Your task to perform on an android device: manage bookmarks in the chrome app Image 0: 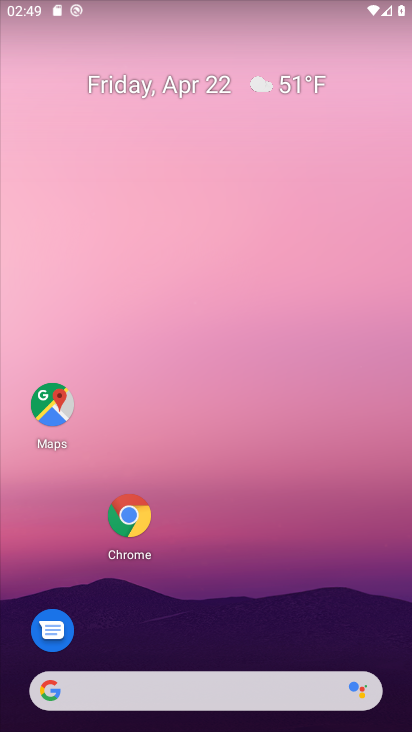
Step 0: click (126, 510)
Your task to perform on an android device: manage bookmarks in the chrome app Image 1: 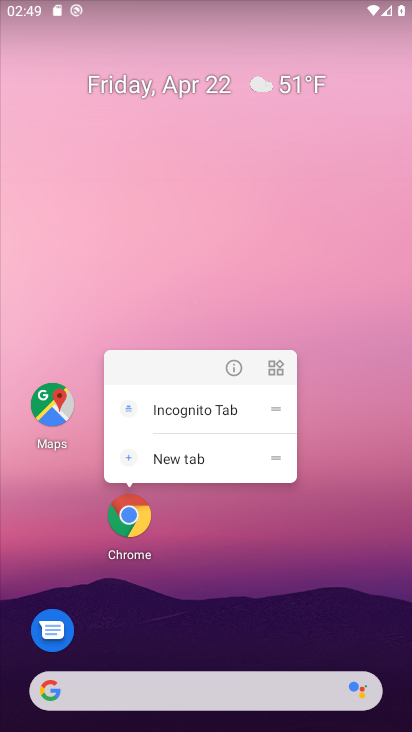
Step 1: click (121, 517)
Your task to perform on an android device: manage bookmarks in the chrome app Image 2: 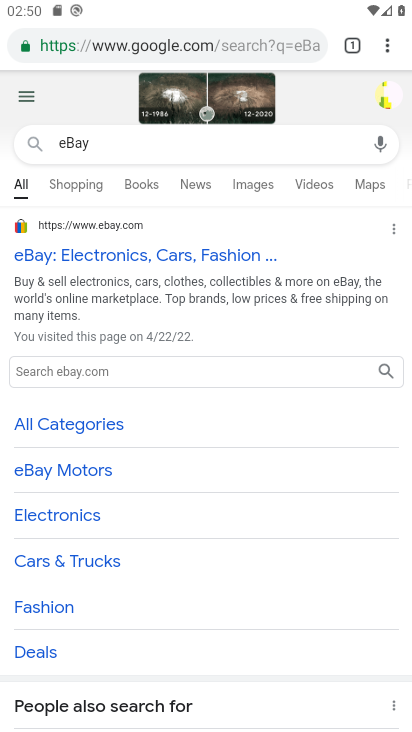
Step 2: click (386, 37)
Your task to perform on an android device: manage bookmarks in the chrome app Image 3: 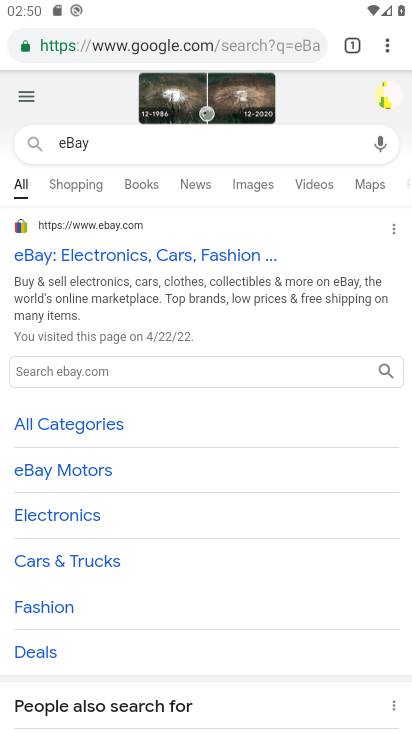
Step 3: click (385, 50)
Your task to perform on an android device: manage bookmarks in the chrome app Image 4: 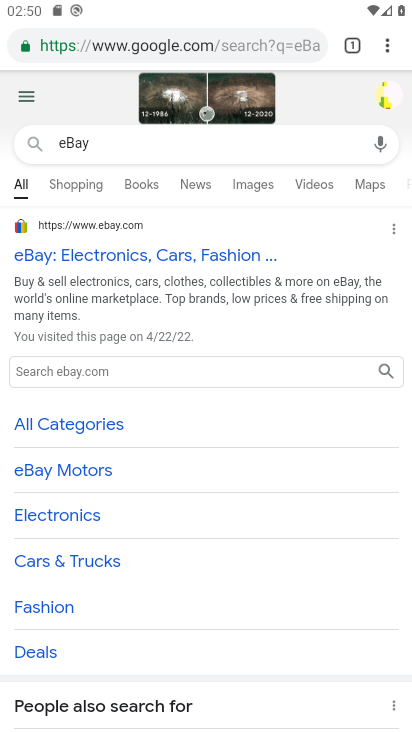
Step 4: click (385, 50)
Your task to perform on an android device: manage bookmarks in the chrome app Image 5: 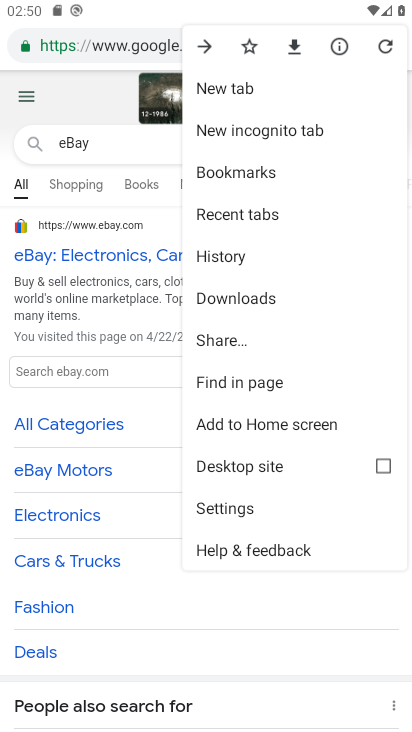
Step 5: click (232, 170)
Your task to perform on an android device: manage bookmarks in the chrome app Image 6: 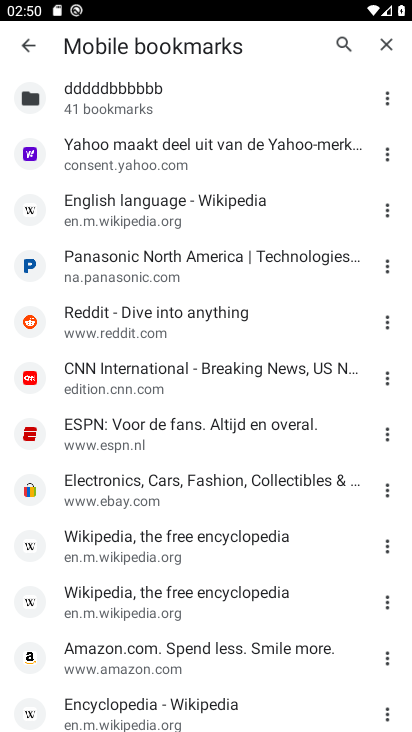
Step 6: click (385, 491)
Your task to perform on an android device: manage bookmarks in the chrome app Image 7: 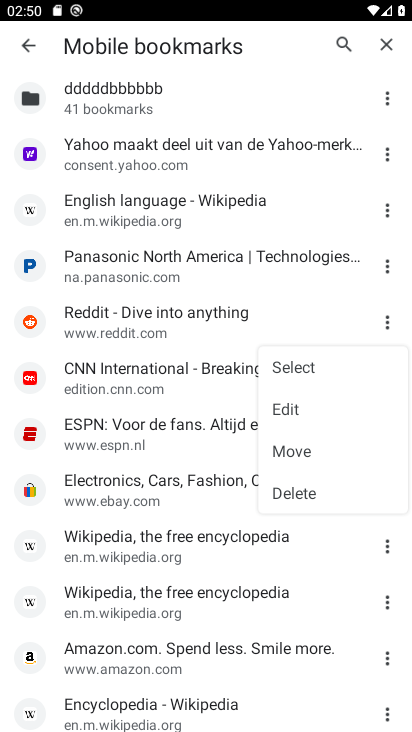
Step 7: click (304, 491)
Your task to perform on an android device: manage bookmarks in the chrome app Image 8: 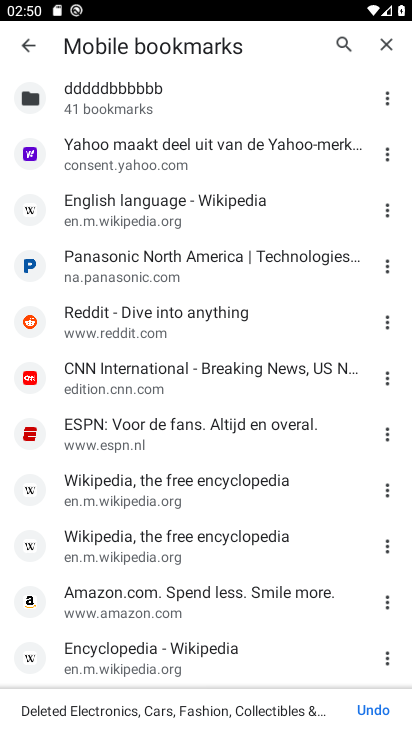
Step 8: task complete